Your task to perform on an android device: see creations saved in the google photos Image 0: 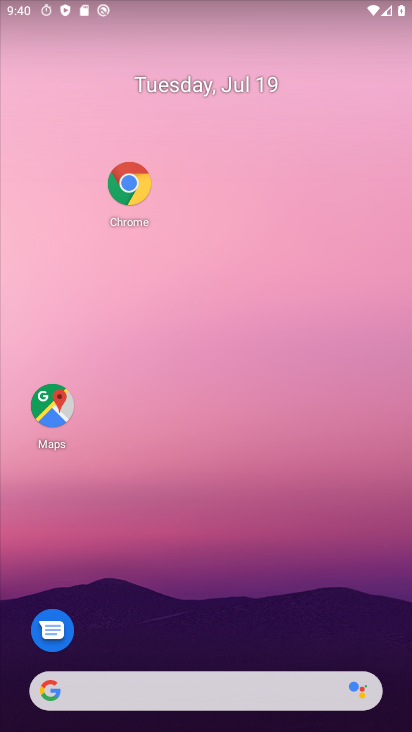
Step 0: drag from (218, 654) to (149, 6)
Your task to perform on an android device: see creations saved in the google photos Image 1: 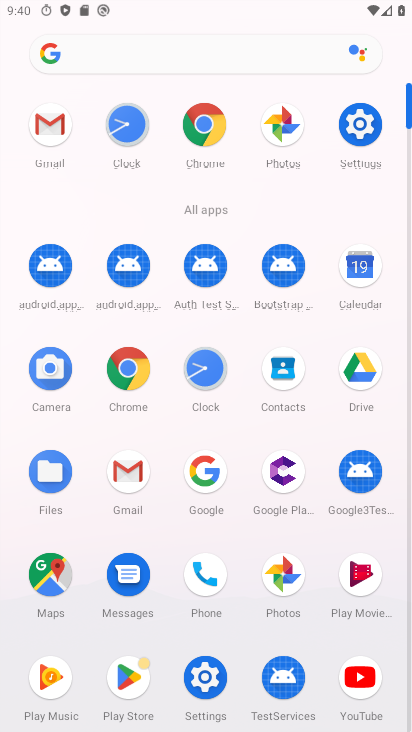
Step 1: click (291, 124)
Your task to perform on an android device: see creations saved in the google photos Image 2: 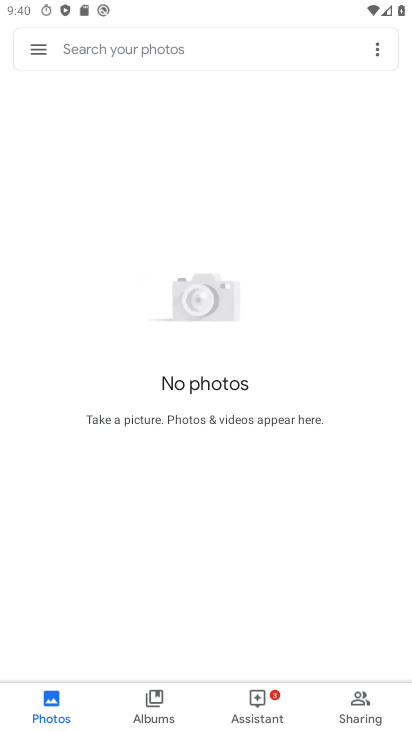
Step 2: click (180, 46)
Your task to perform on an android device: see creations saved in the google photos Image 3: 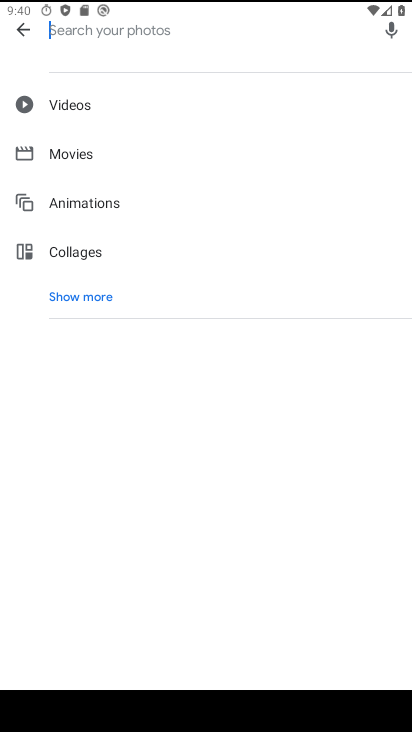
Step 3: click (49, 287)
Your task to perform on an android device: see creations saved in the google photos Image 4: 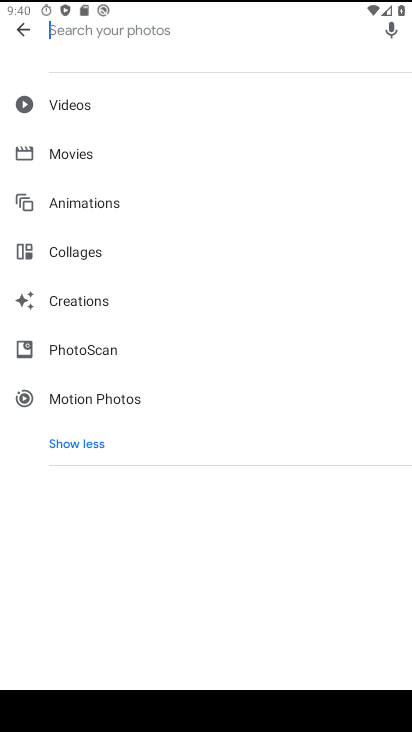
Step 4: click (76, 303)
Your task to perform on an android device: see creations saved in the google photos Image 5: 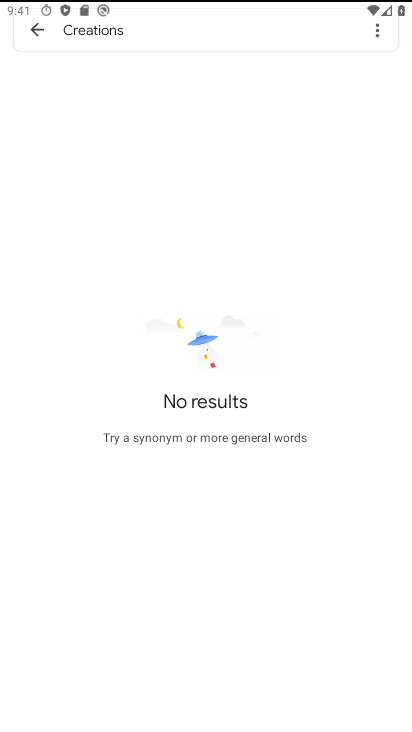
Step 5: task complete